Your task to perform on an android device: Go to display settings Image 0: 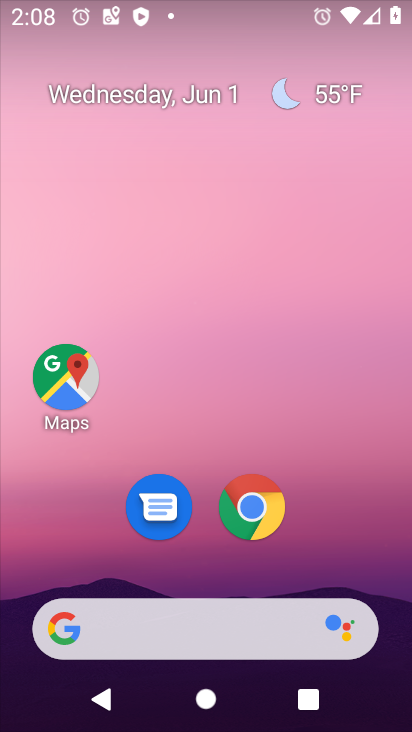
Step 0: drag from (334, 572) to (308, 0)
Your task to perform on an android device: Go to display settings Image 1: 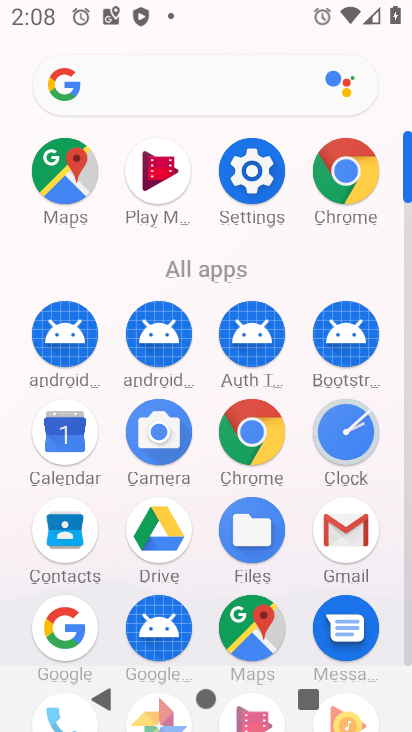
Step 1: click (252, 168)
Your task to perform on an android device: Go to display settings Image 2: 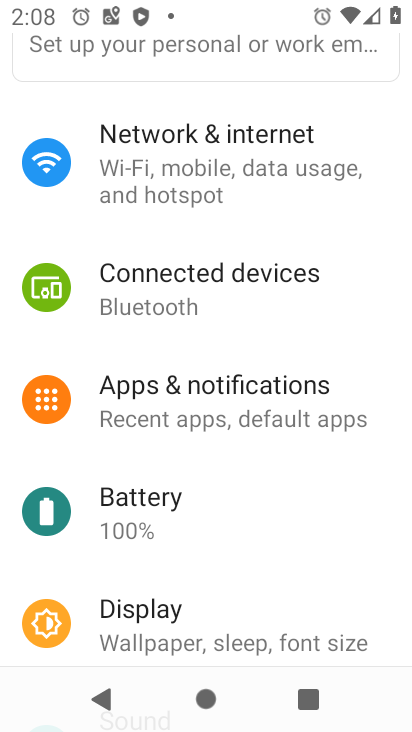
Step 2: click (143, 625)
Your task to perform on an android device: Go to display settings Image 3: 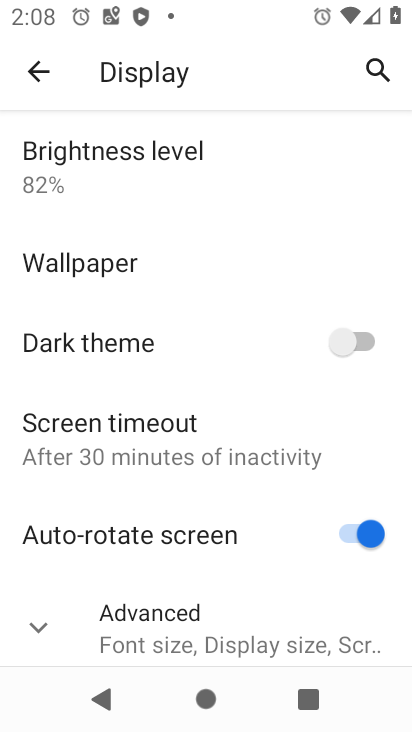
Step 3: task complete